Your task to perform on an android device: Find coffee shops on Maps Image 0: 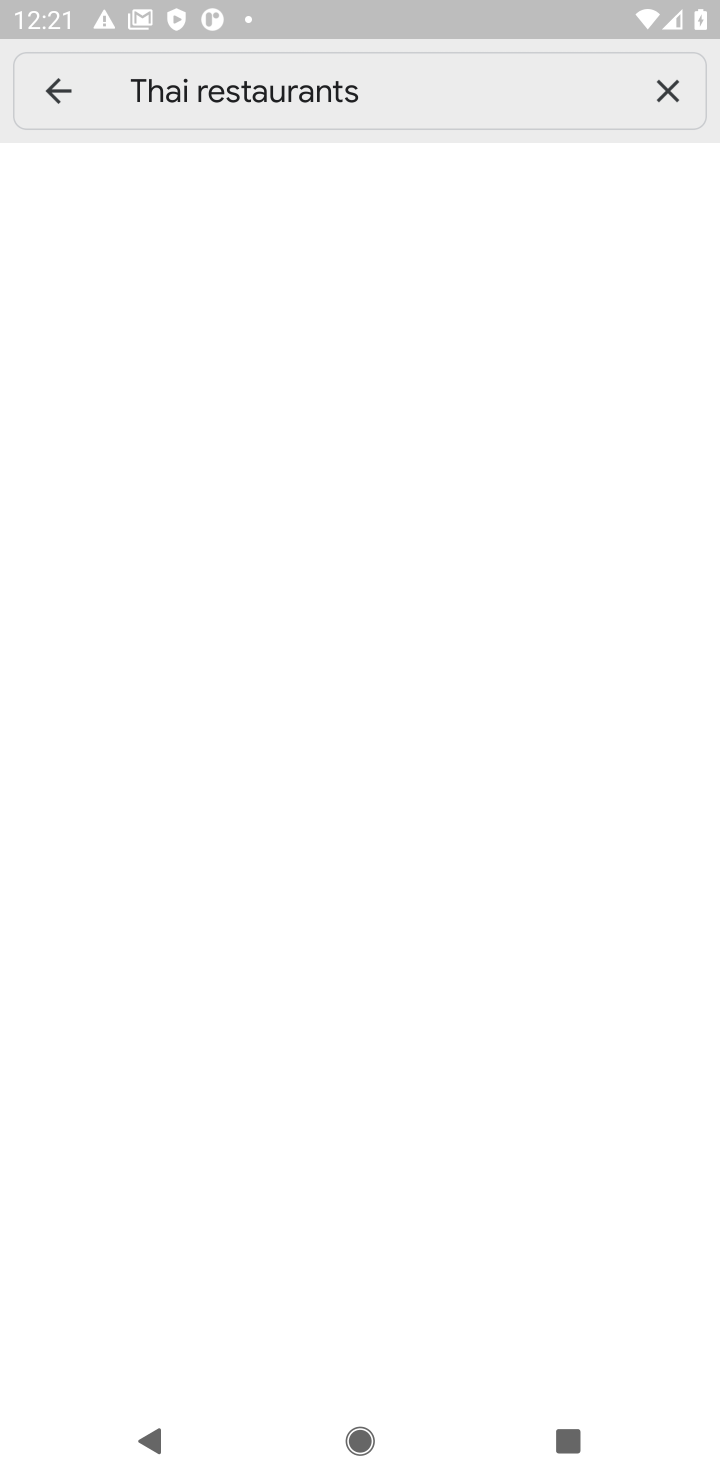
Step 0: press home button
Your task to perform on an android device: Find coffee shops on Maps Image 1: 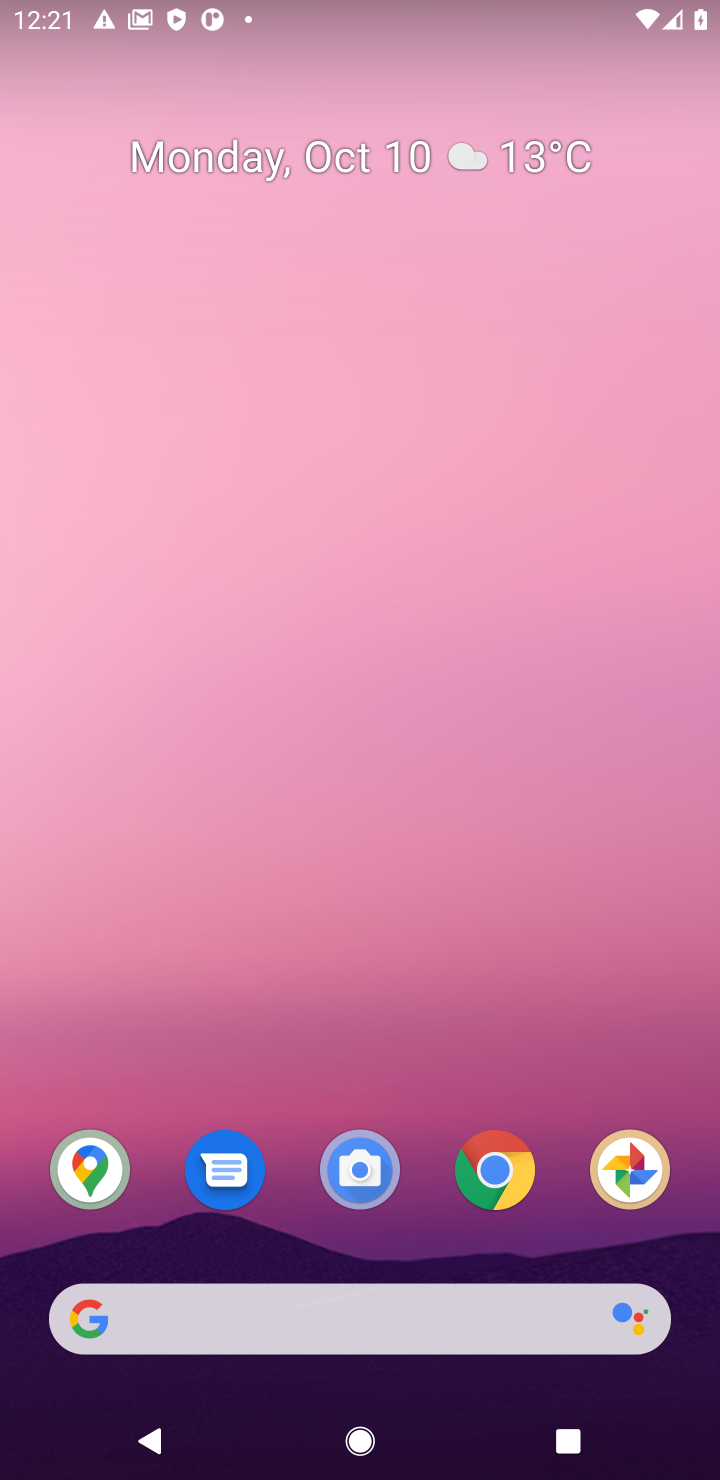
Step 1: click (89, 1163)
Your task to perform on an android device: Find coffee shops on Maps Image 2: 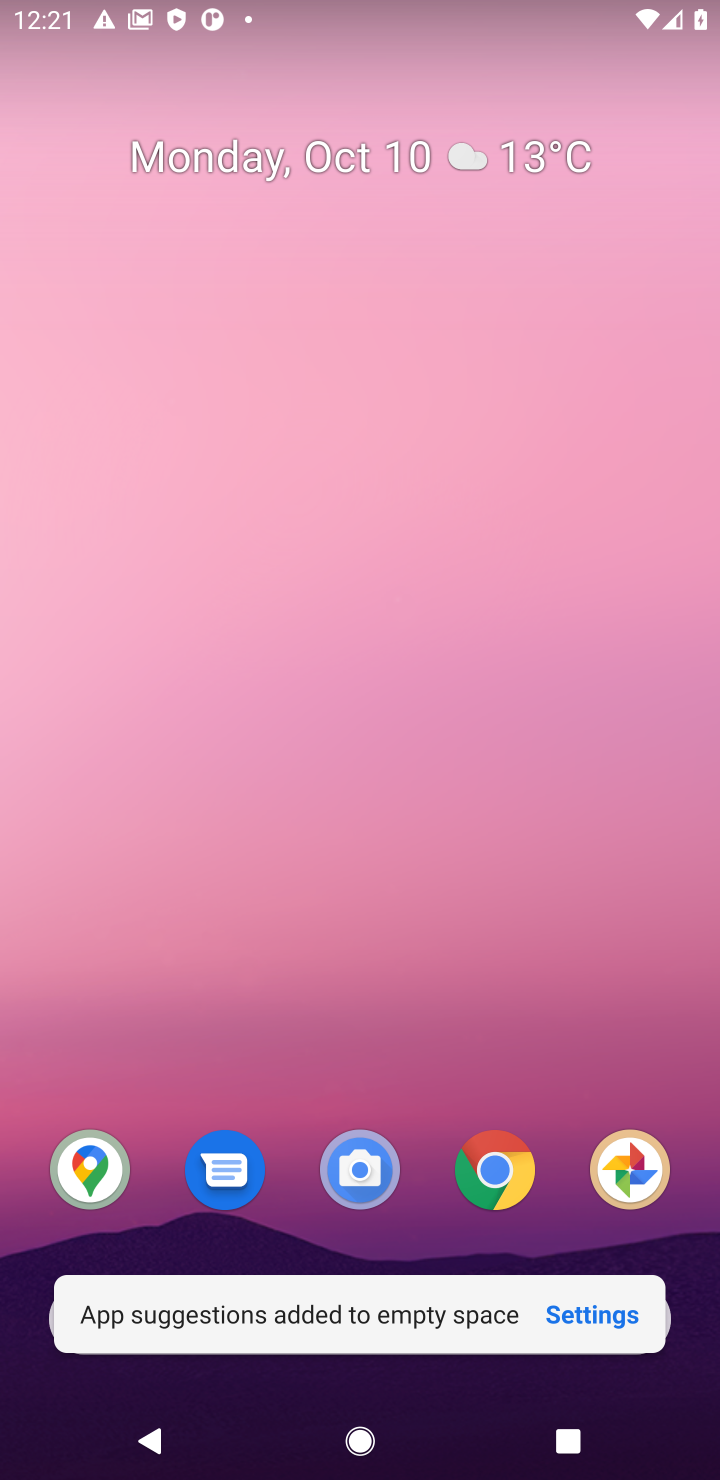
Step 2: click (89, 1163)
Your task to perform on an android device: Find coffee shops on Maps Image 3: 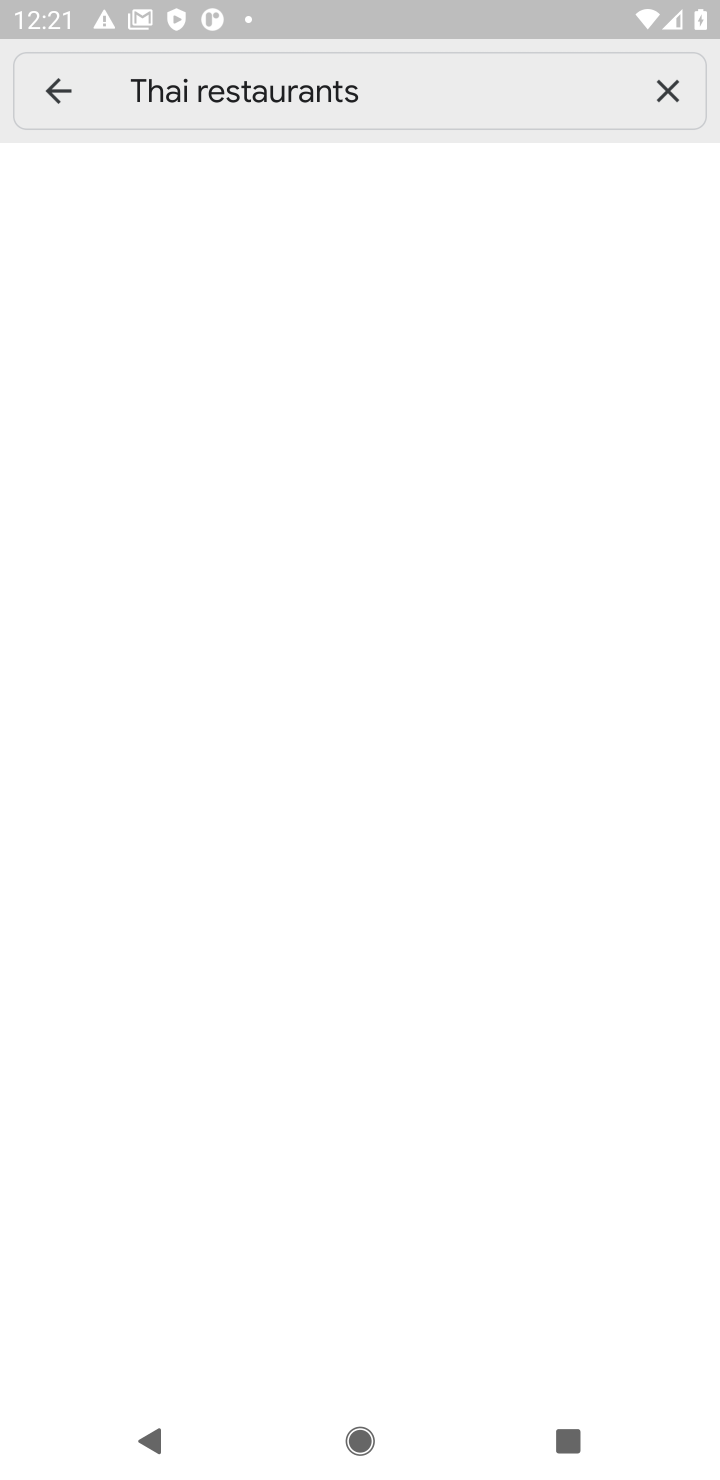
Step 3: click (664, 81)
Your task to perform on an android device: Find coffee shops on Maps Image 4: 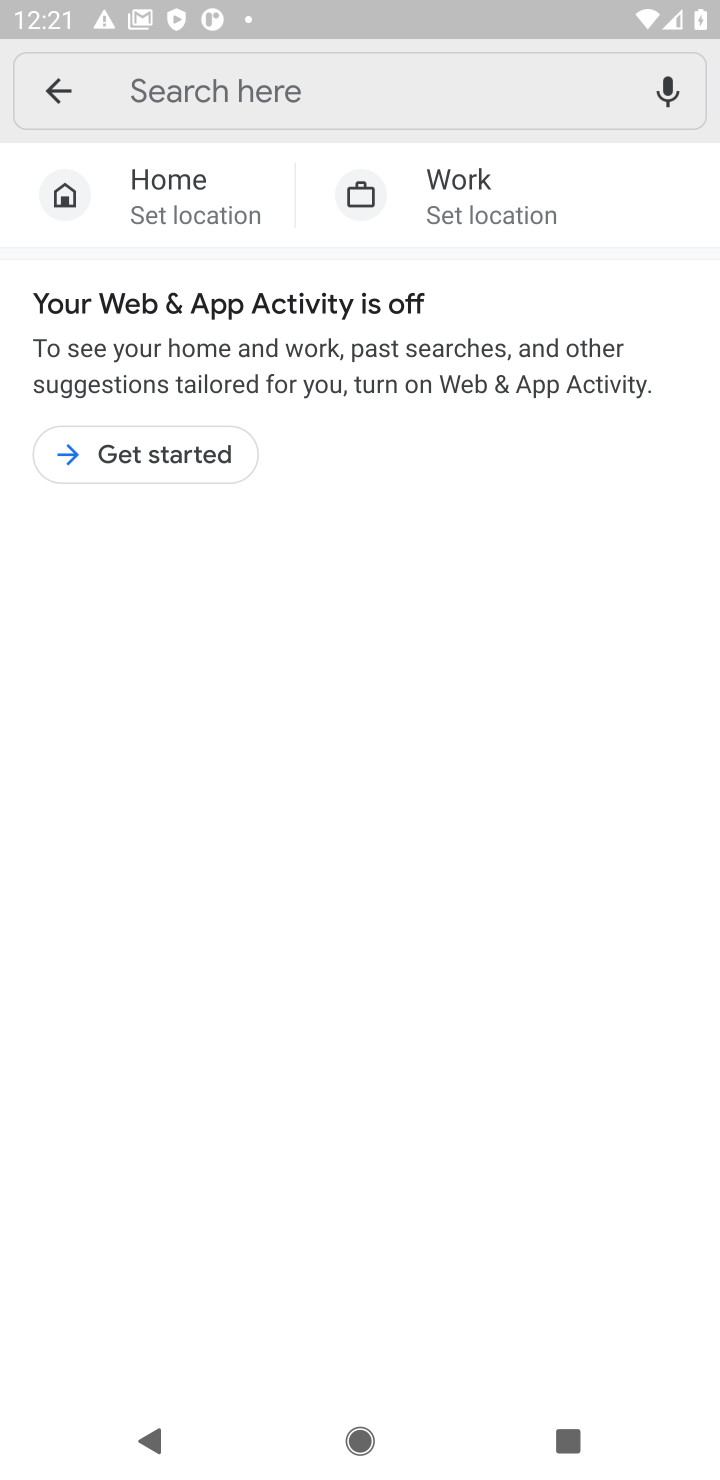
Step 4: click (433, 91)
Your task to perform on an android device: Find coffee shops on Maps Image 5: 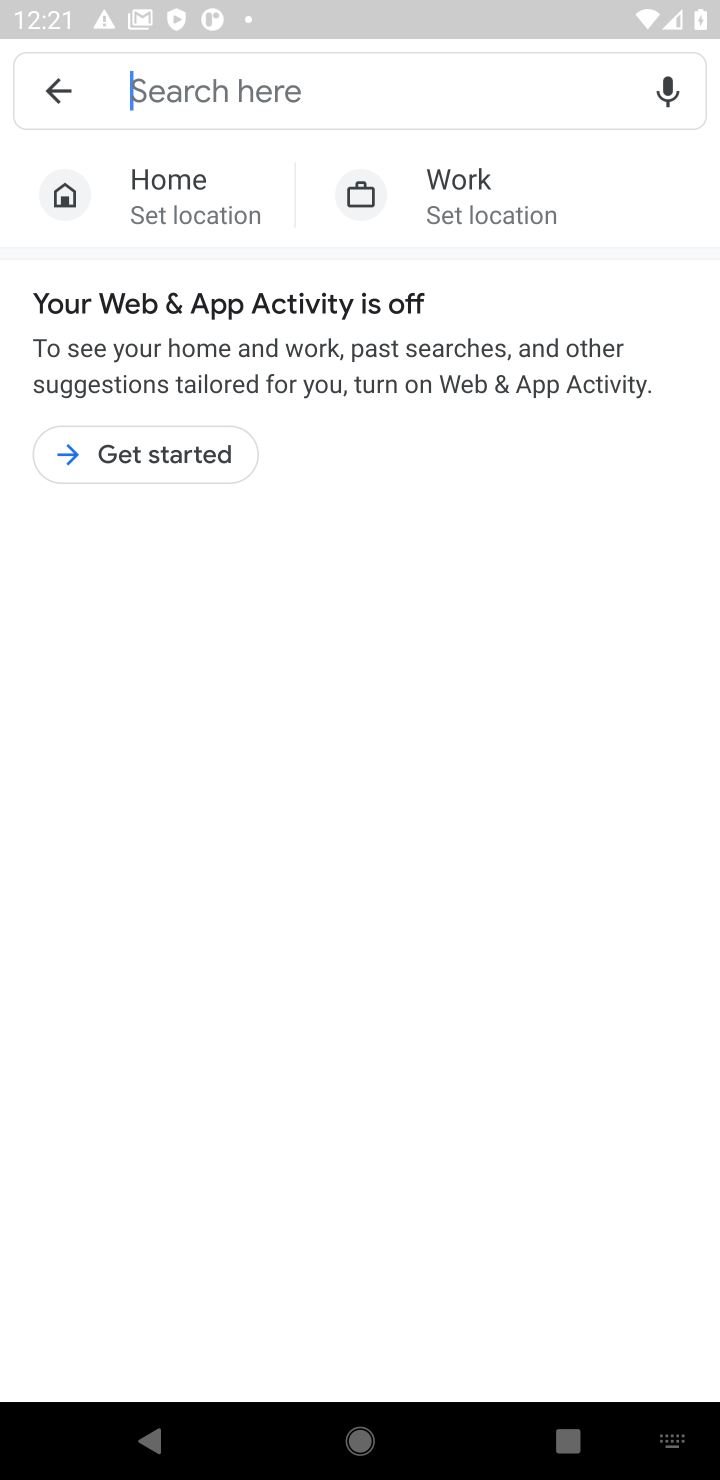
Step 5: type "coffee shops"
Your task to perform on an android device: Find coffee shops on Maps Image 6: 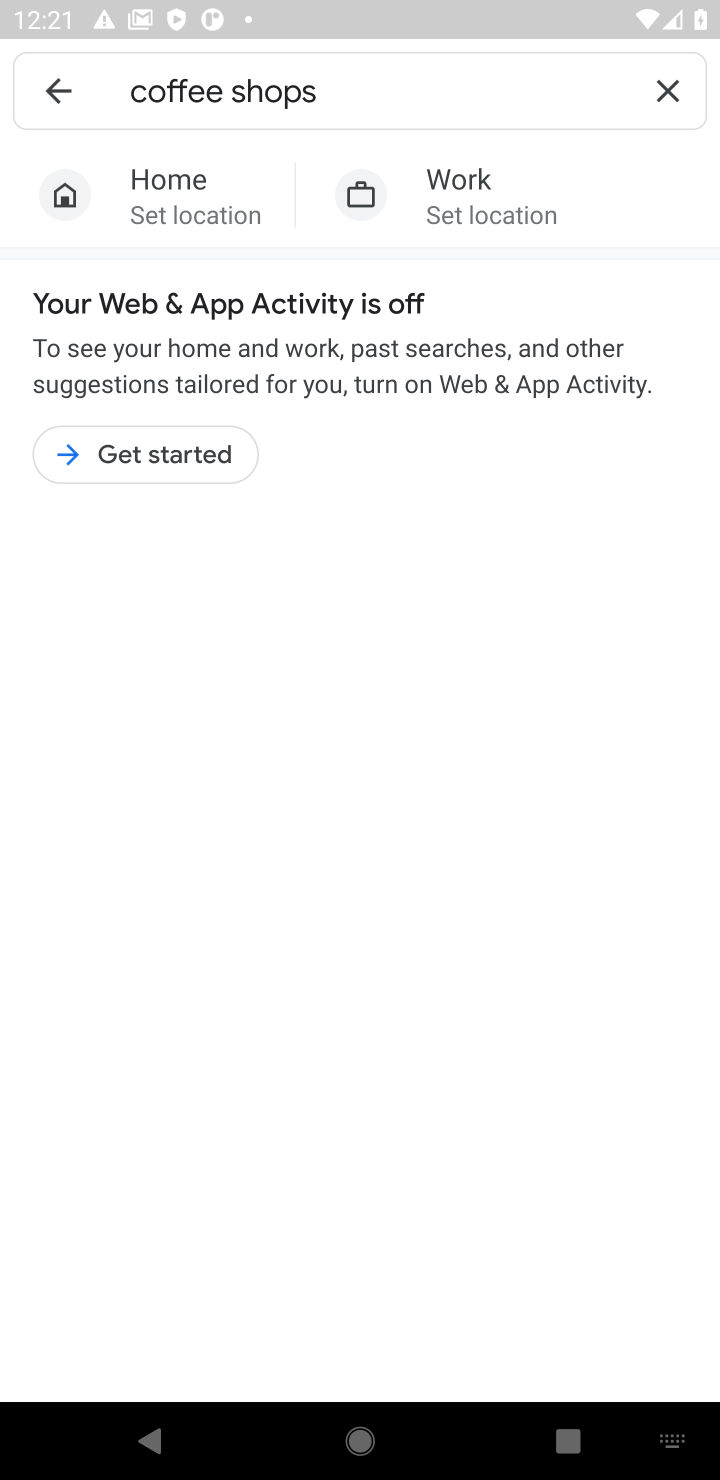
Step 6: click (197, 449)
Your task to perform on an android device: Find coffee shops on Maps Image 7: 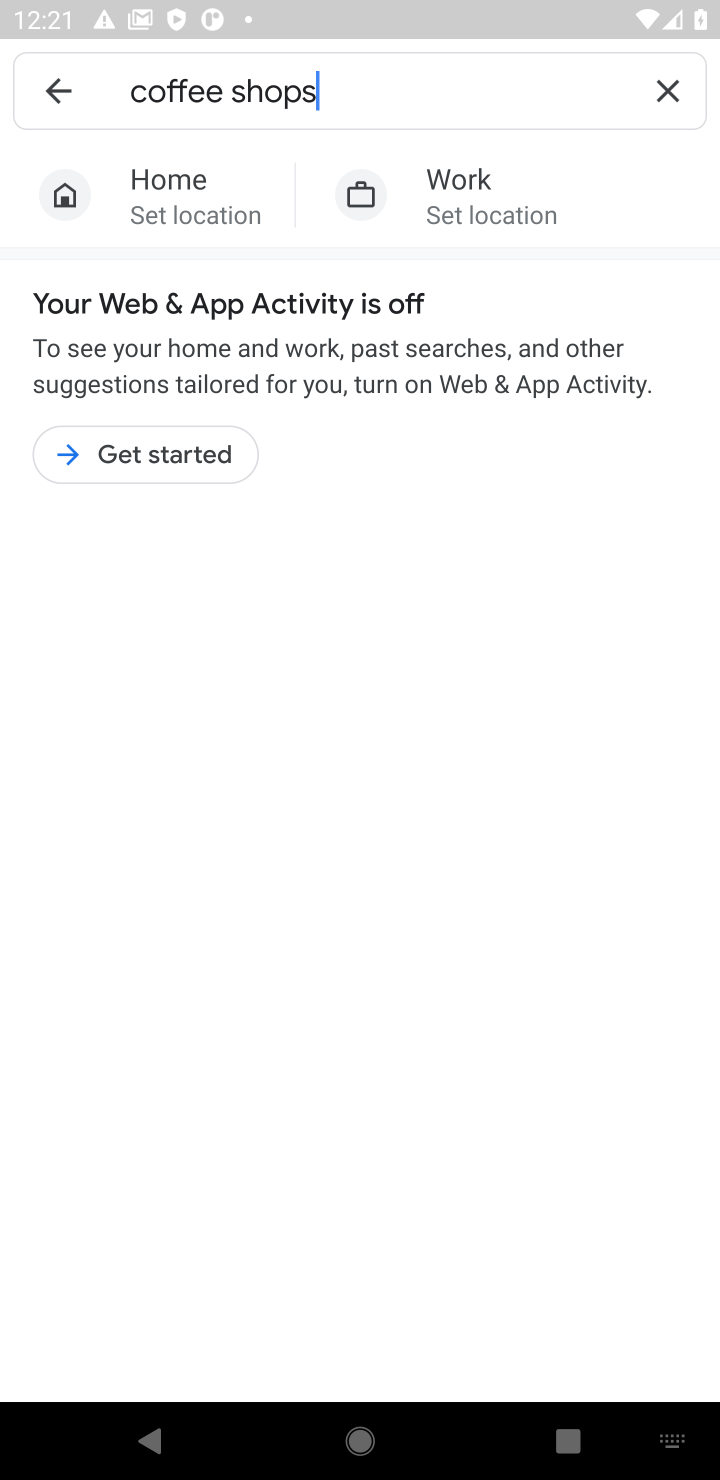
Step 7: click (150, 452)
Your task to perform on an android device: Find coffee shops on Maps Image 8: 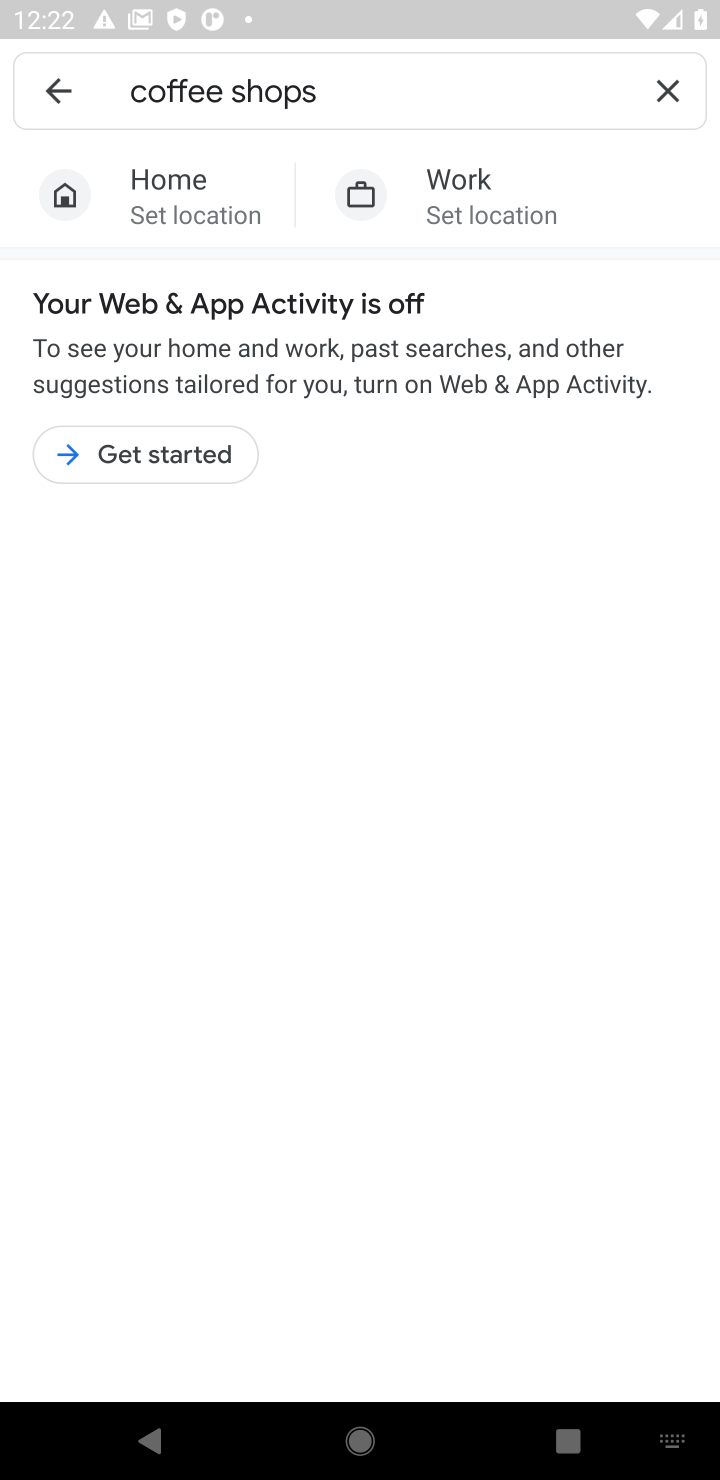
Step 8: press back button
Your task to perform on an android device: Find coffee shops on Maps Image 9: 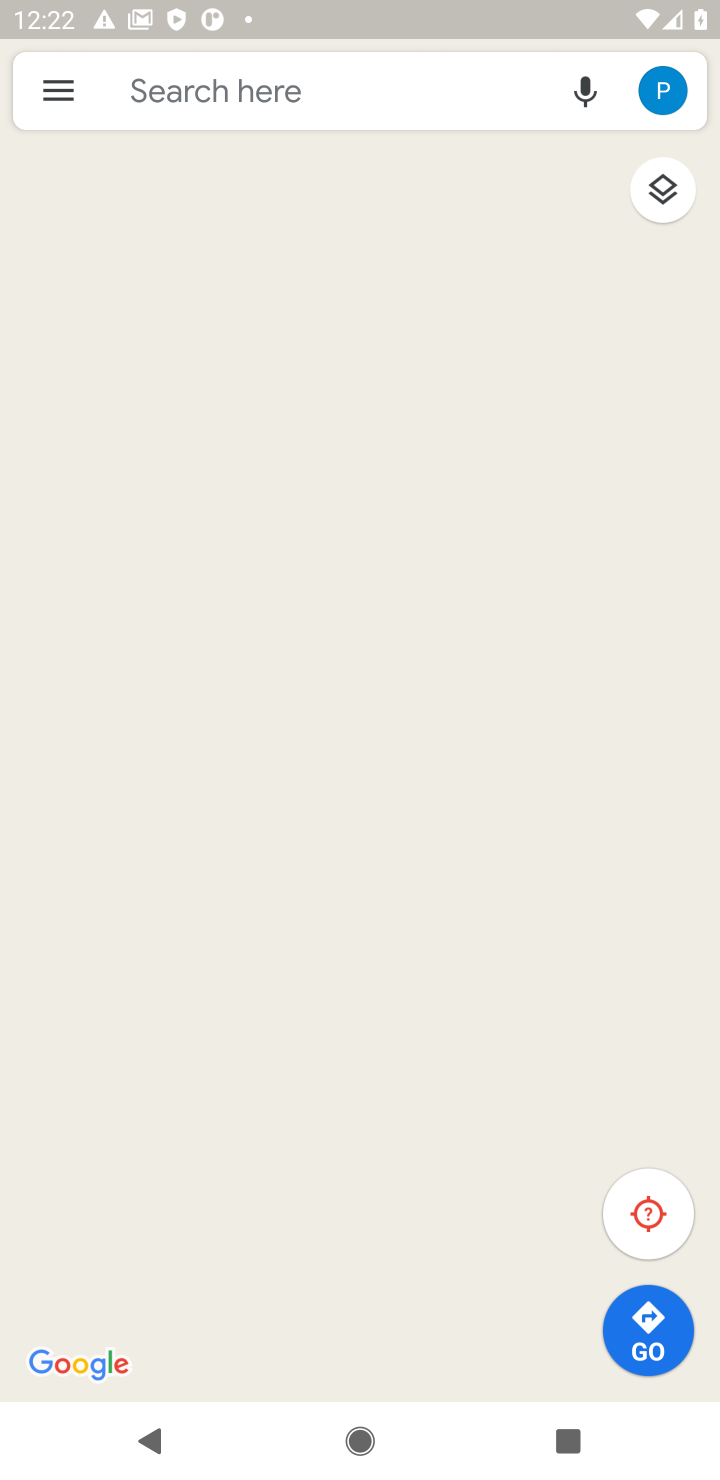
Step 9: click (169, 84)
Your task to perform on an android device: Find coffee shops on Maps Image 10: 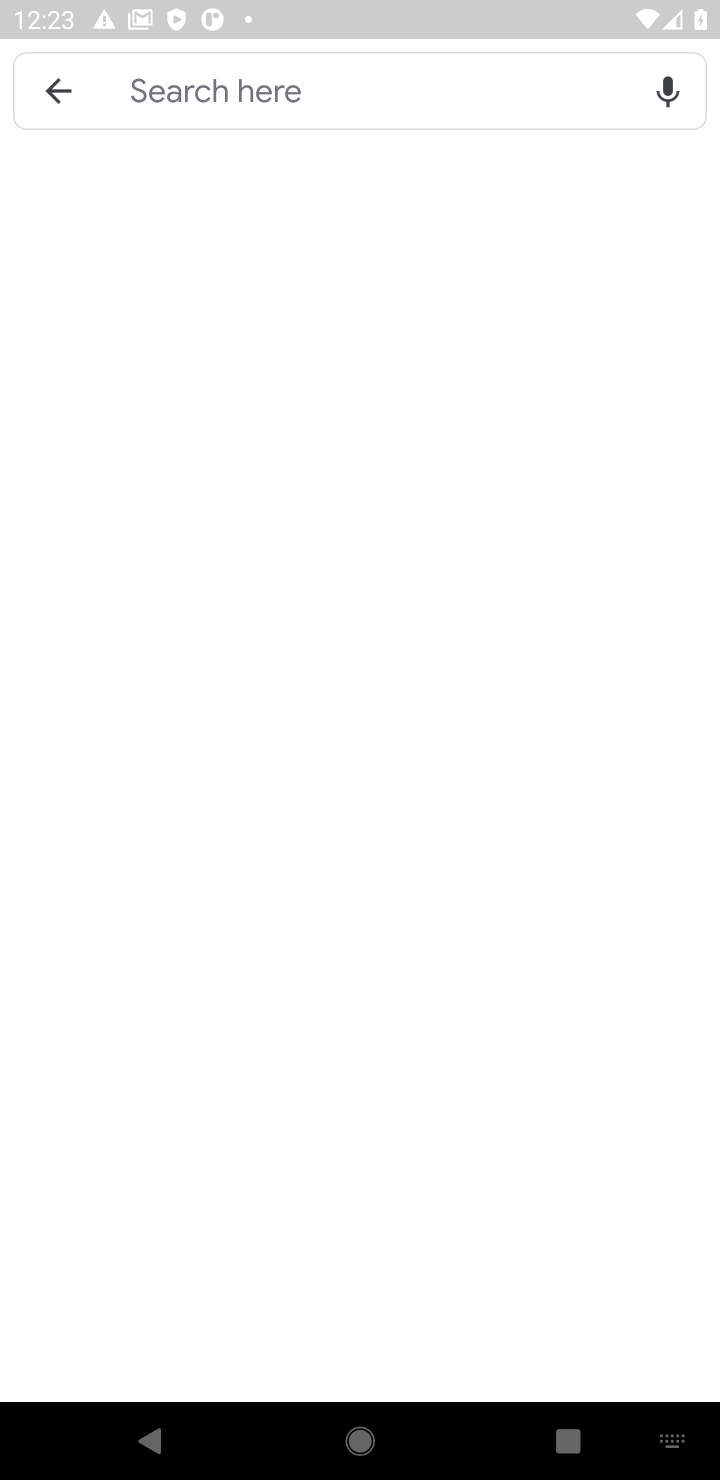
Step 10: type "coffee shops"
Your task to perform on an android device: Find coffee shops on Maps Image 11: 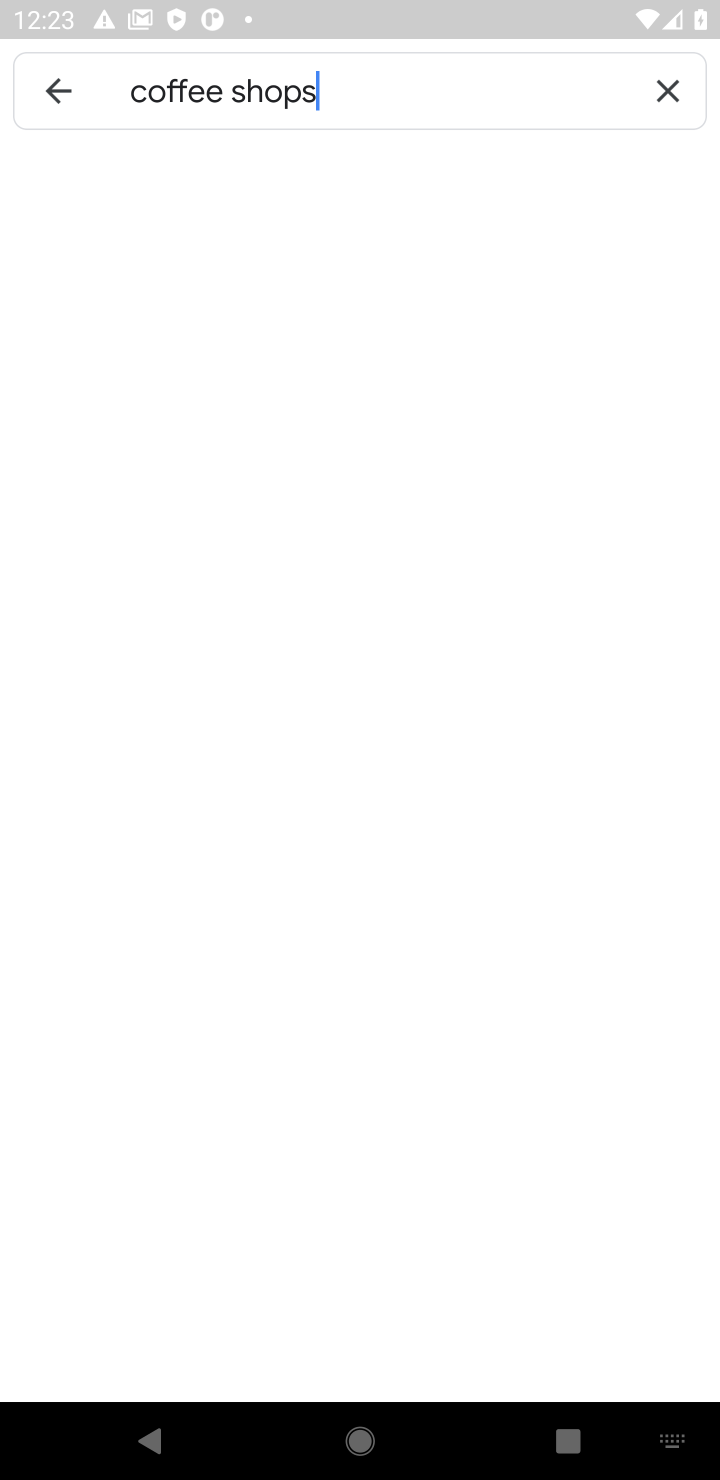
Step 11: task complete